Your task to perform on an android device: Clear the cart on amazon. Add "usb-c to usb-a" to the cart on amazon Image 0: 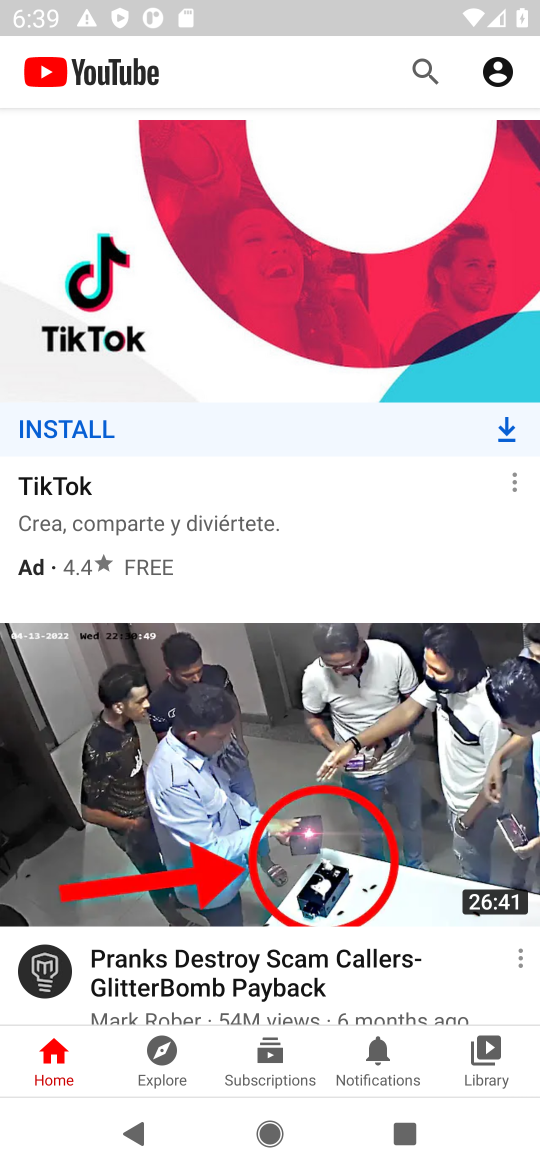
Step 0: click (255, 1019)
Your task to perform on an android device: Clear the cart on amazon. Add "usb-c to usb-a" to the cart on amazon Image 1: 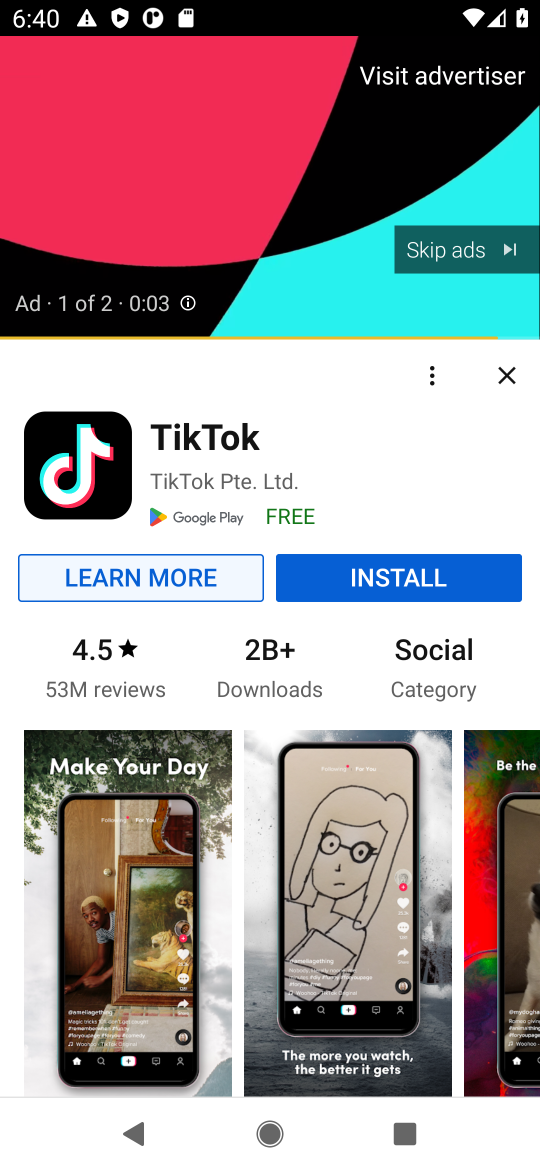
Step 1: press home button
Your task to perform on an android device: Clear the cart on amazon. Add "usb-c to usb-a" to the cart on amazon Image 2: 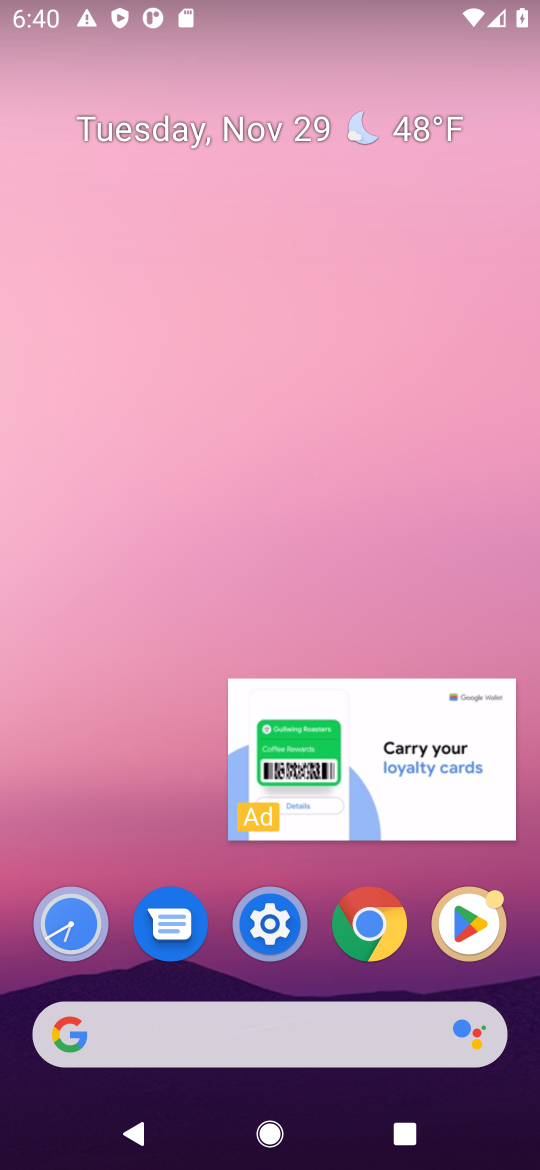
Step 2: click (171, 1023)
Your task to perform on an android device: Clear the cart on amazon. Add "usb-c to usb-a" to the cart on amazon Image 3: 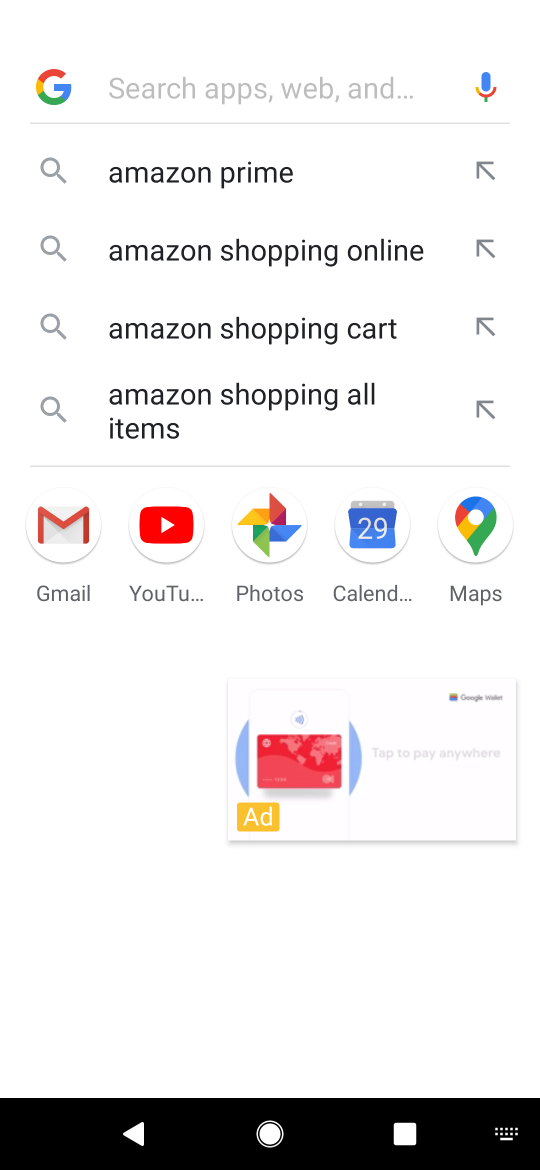
Step 3: click (251, 263)
Your task to perform on an android device: Clear the cart on amazon. Add "usb-c to usb-a" to the cart on amazon Image 4: 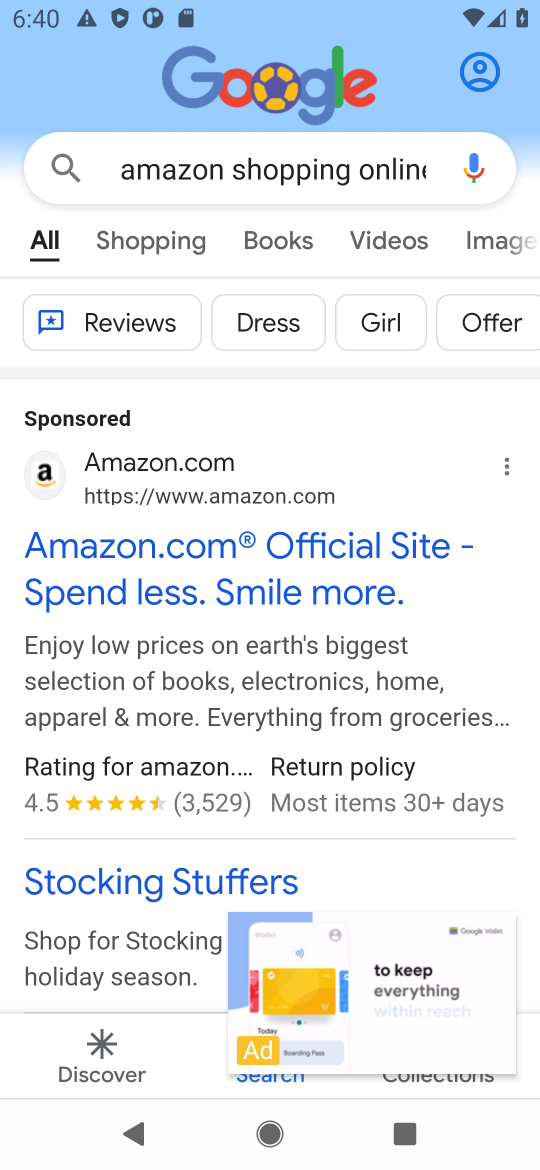
Step 4: click (85, 546)
Your task to perform on an android device: Clear the cart on amazon. Add "usb-c to usb-a" to the cart on amazon Image 5: 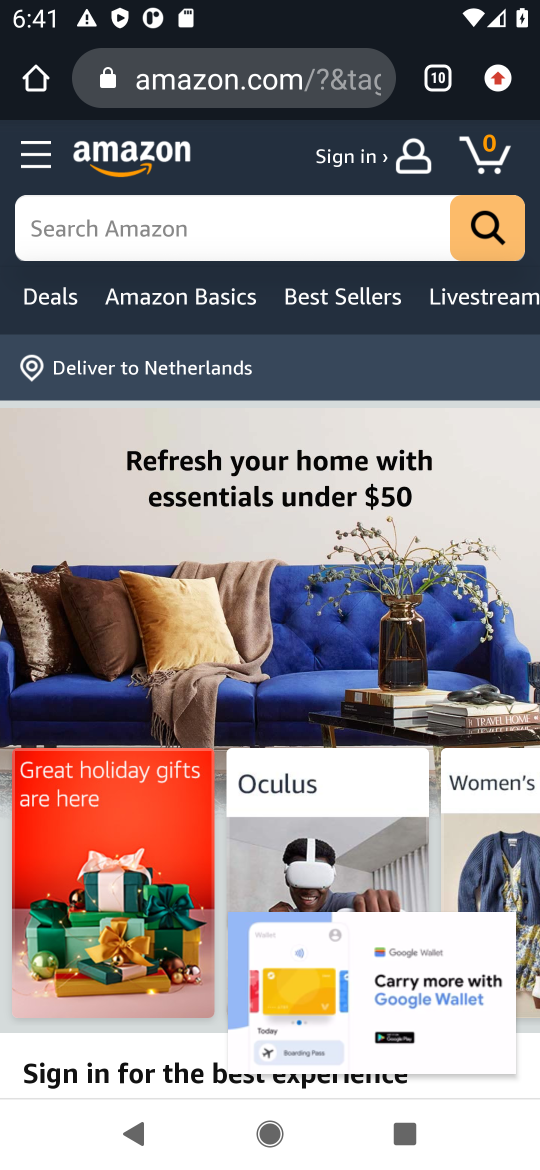
Step 5: click (248, 230)
Your task to perform on an android device: Clear the cart on amazon. Add "usb-c to usb-a" to the cart on amazon Image 6: 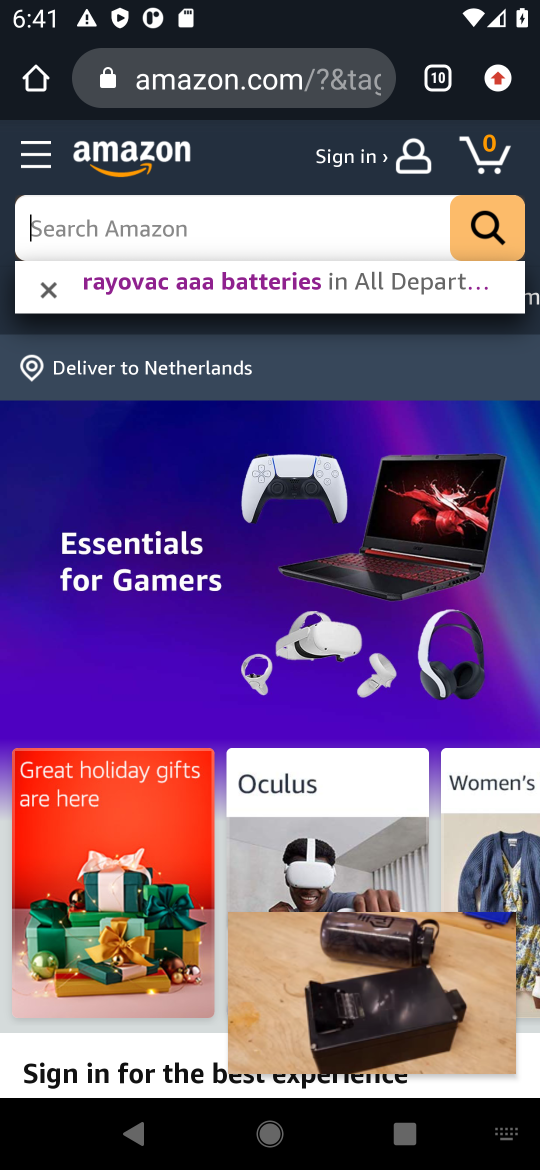
Step 6: type "usb-c to usb-a"
Your task to perform on an android device: Clear the cart on amazon. Add "usb-c to usb-a" to the cart on amazon Image 7: 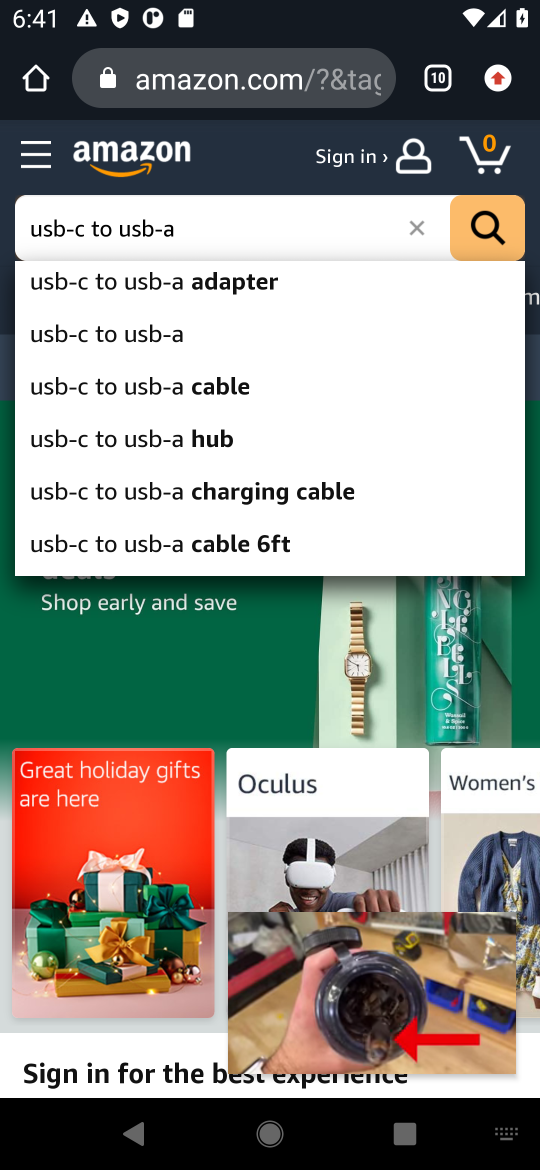
Step 7: click (124, 324)
Your task to perform on an android device: Clear the cart on amazon. Add "usb-c to usb-a" to the cart on amazon Image 8: 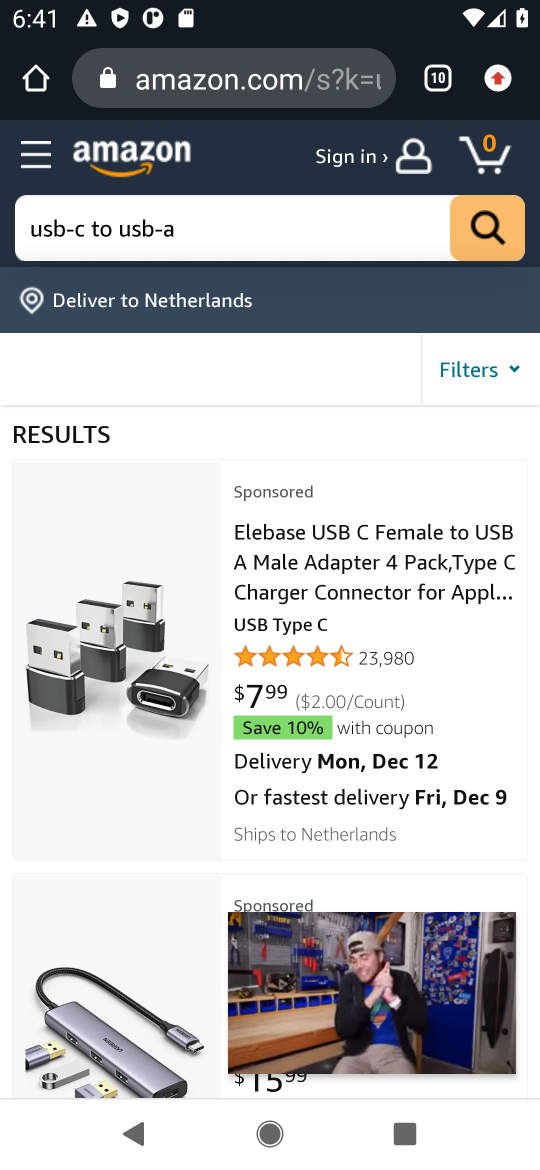
Step 8: click (216, 571)
Your task to perform on an android device: Clear the cart on amazon. Add "usb-c to usb-a" to the cart on amazon Image 9: 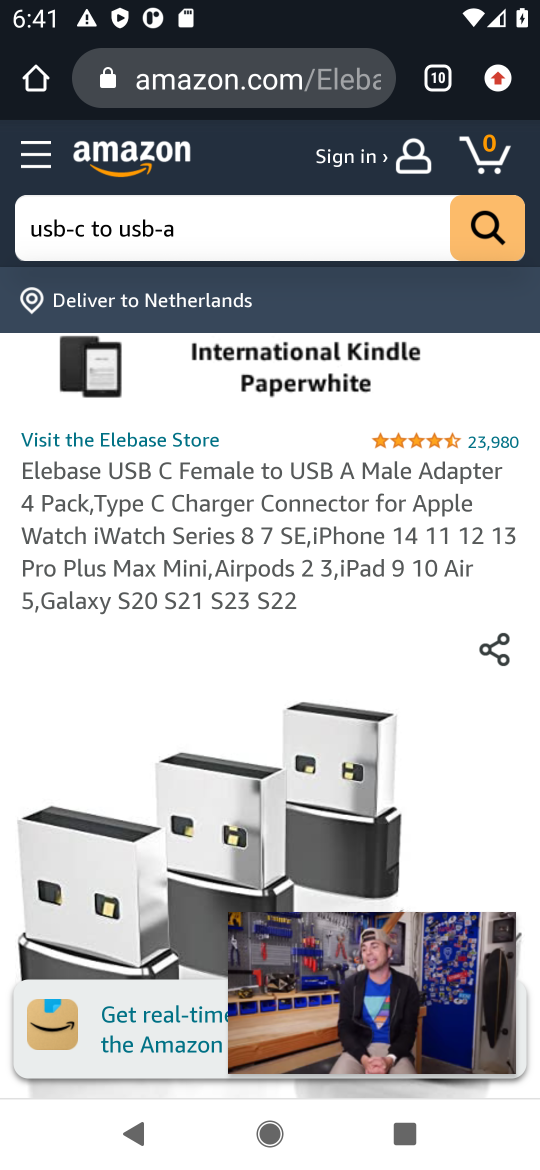
Step 9: drag from (224, 695) to (190, 416)
Your task to perform on an android device: Clear the cart on amazon. Add "usb-c to usb-a" to the cart on amazon Image 10: 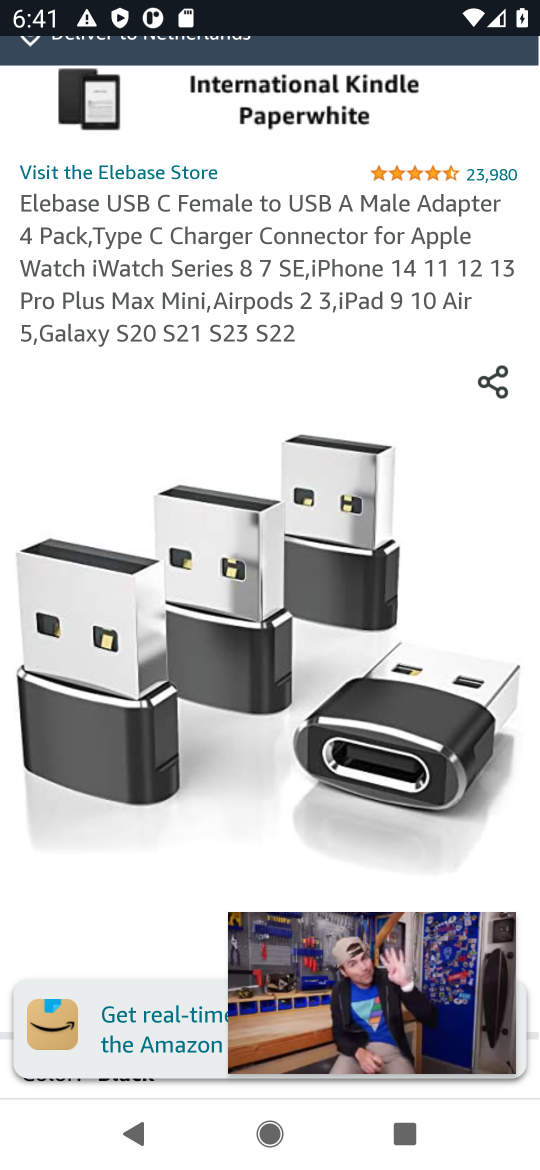
Step 10: drag from (232, 777) to (232, 626)
Your task to perform on an android device: Clear the cart on amazon. Add "usb-c to usb-a" to the cart on amazon Image 11: 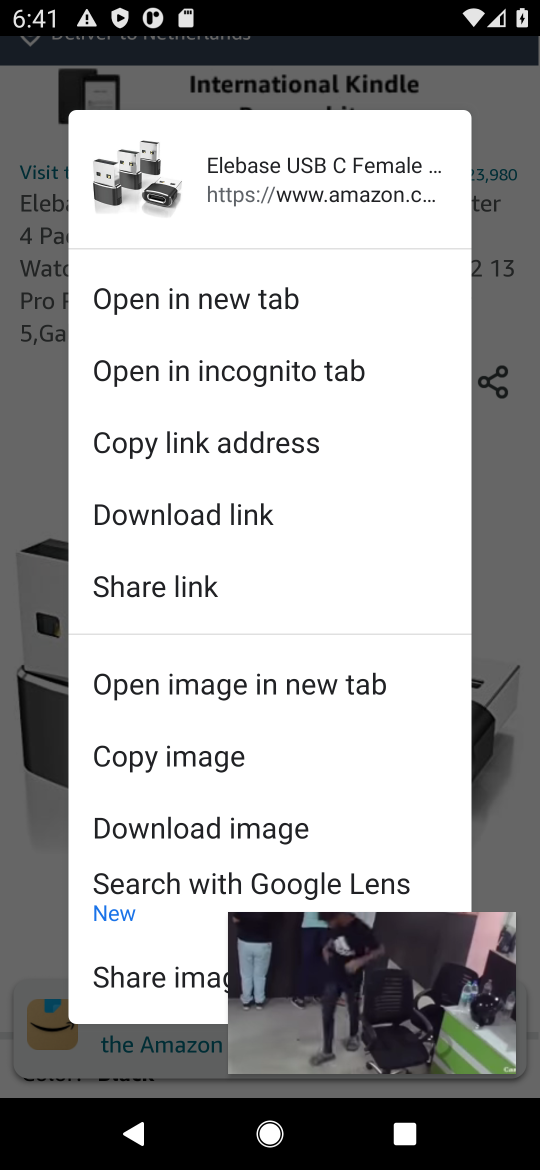
Step 11: click (511, 613)
Your task to perform on an android device: Clear the cart on amazon. Add "usb-c to usb-a" to the cart on amazon Image 12: 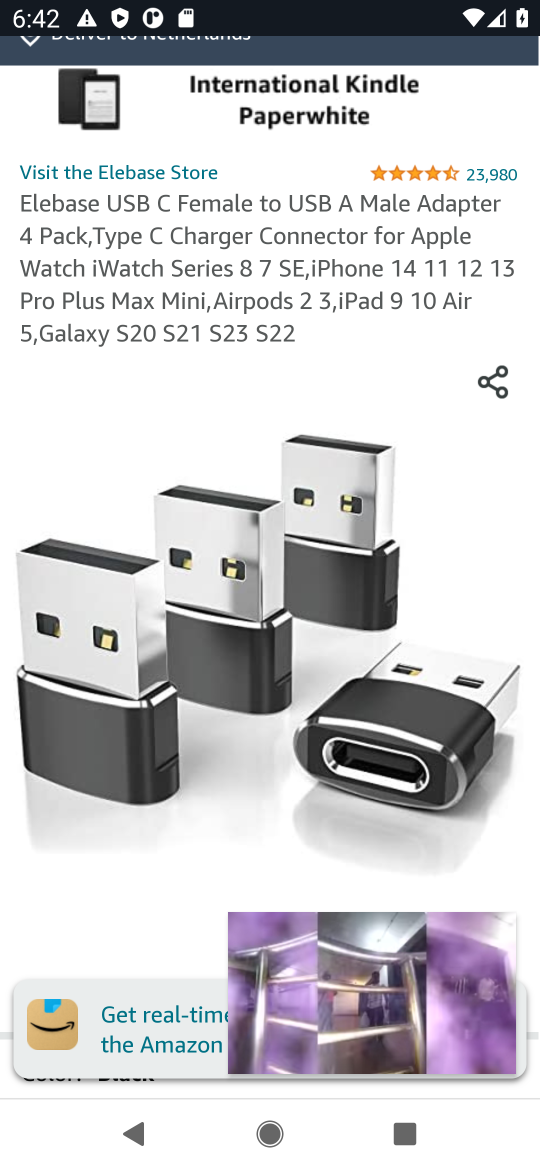
Step 12: drag from (229, 763) to (236, 113)
Your task to perform on an android device: Clear the cart on amazon. Add "usb-c to usb-a" to the cart on amazon Image 13: 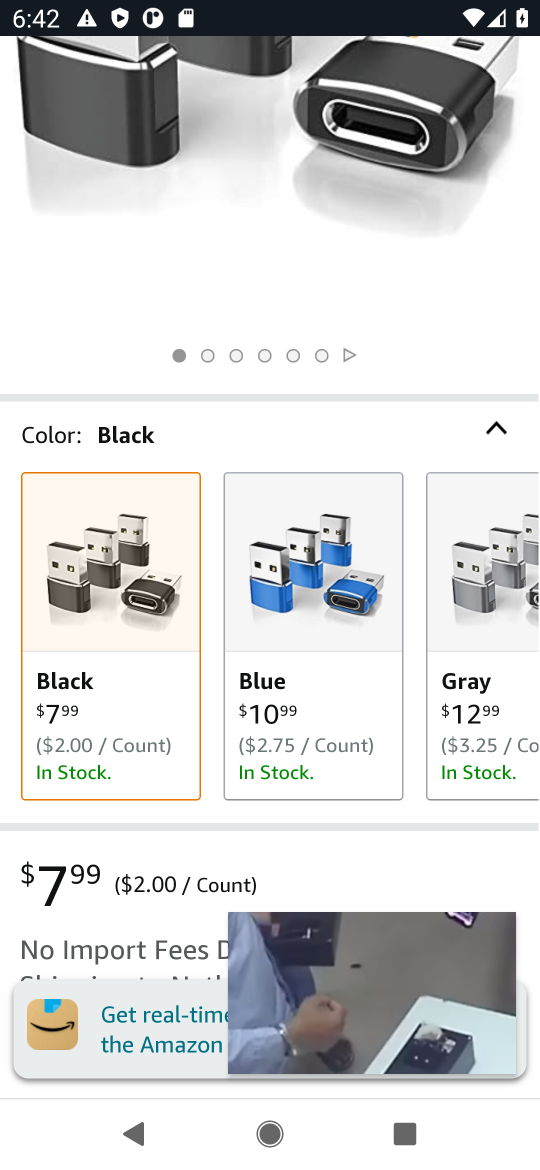
Step 13: drag from (209, 822) to (258, 159)
Your task to perform on an android device: Clear the cart on amazon. Add "usb-c to usb-a" to the cart on amazon Image 14: 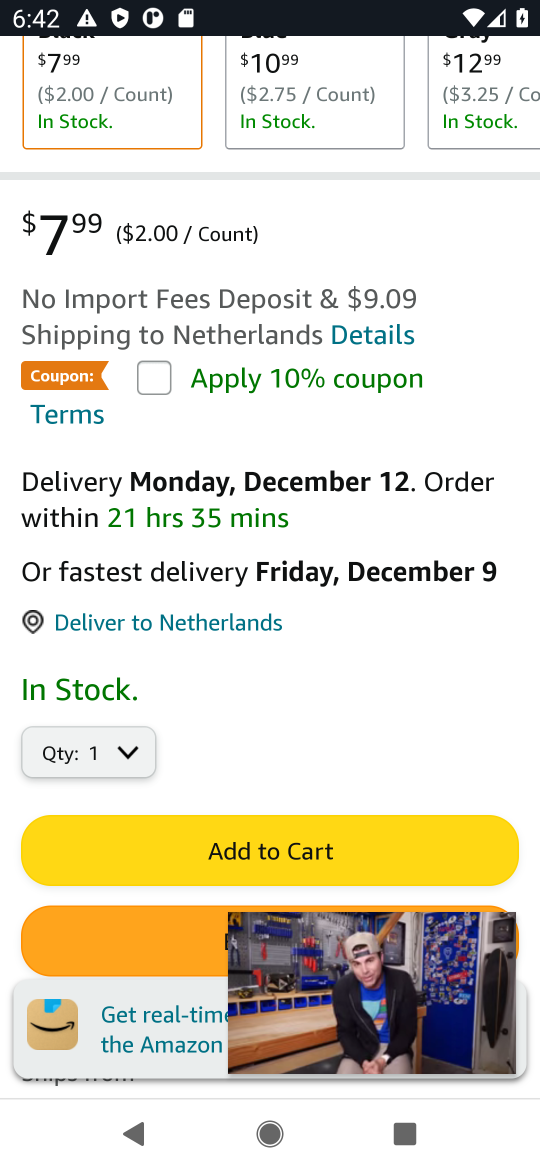
Step 14: click (290, 859)
Your task to perform on an android device: Clear the cart on amazon. Add "usb-c to usb-a" to the cart on amazon Image 15: 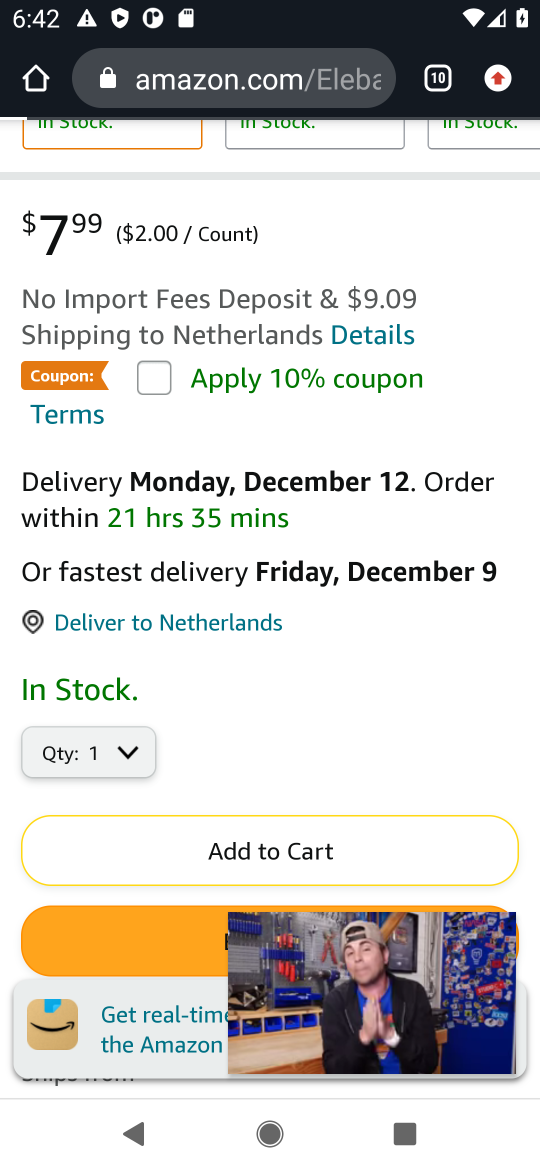
Step 15: task complete